Your task to perform on an android device: Open Wikipedia Image 0: 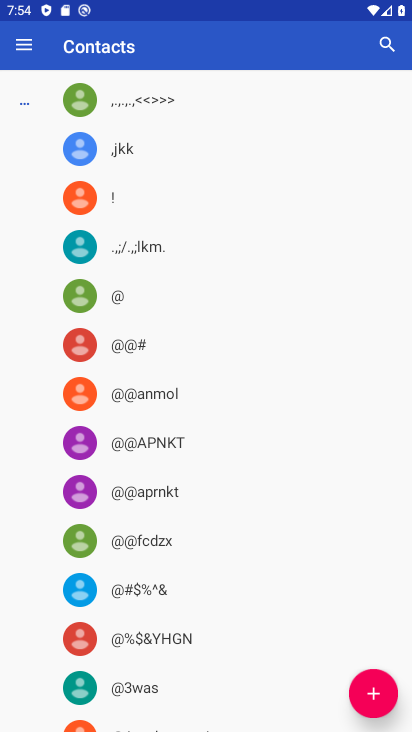
Step 0: press home button
Your task to perform on an android device: Open Wikipedia Image 1: 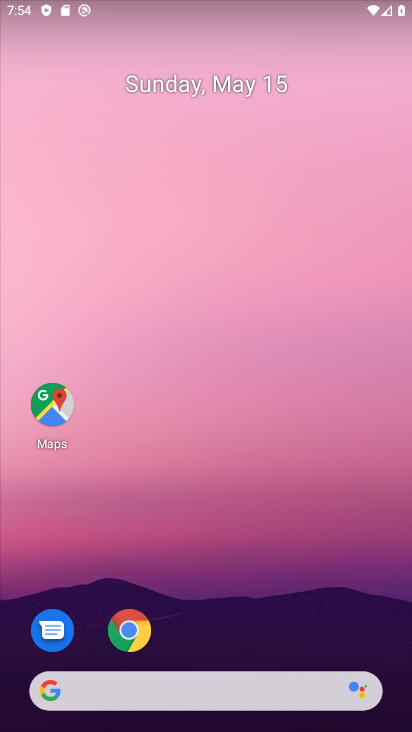
Step 1: click (128, 616)
Your task to perform on an android device: Open Wikipedia Image 2: 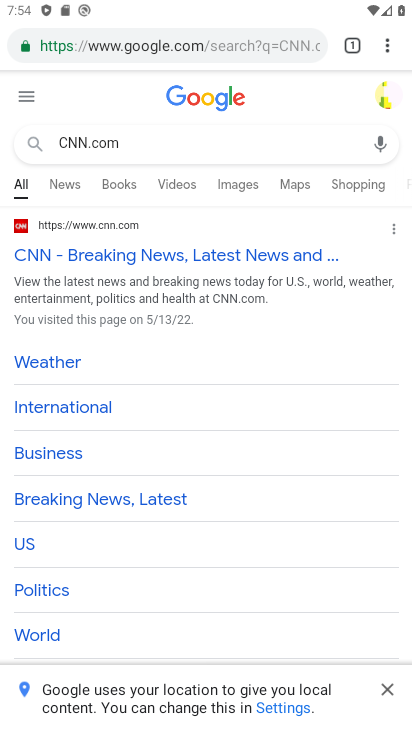
Step 2: click (176, 46)
Your task to perform on an android device: Open Wikipedia Image 3: 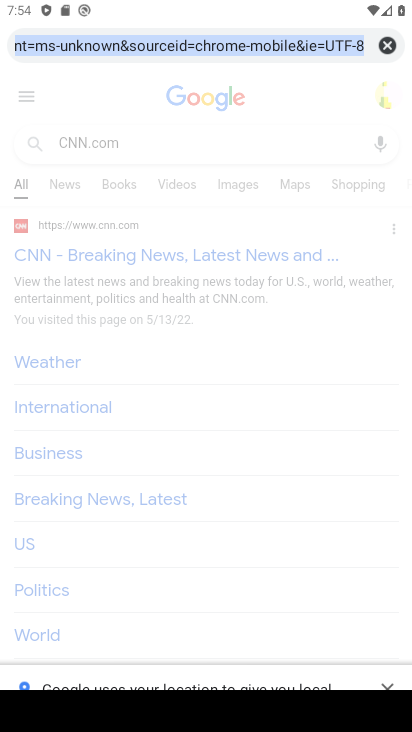
Step 3: type "wikipedia"
Your task to perform on an android device: Open Wikipedia Image 4: 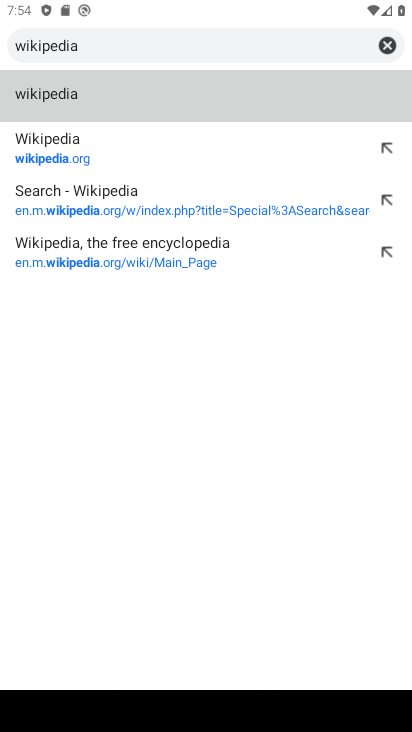
Step 4: click (82, 108)
Your task to perform on an android device: Open Wikipedia Image 5: 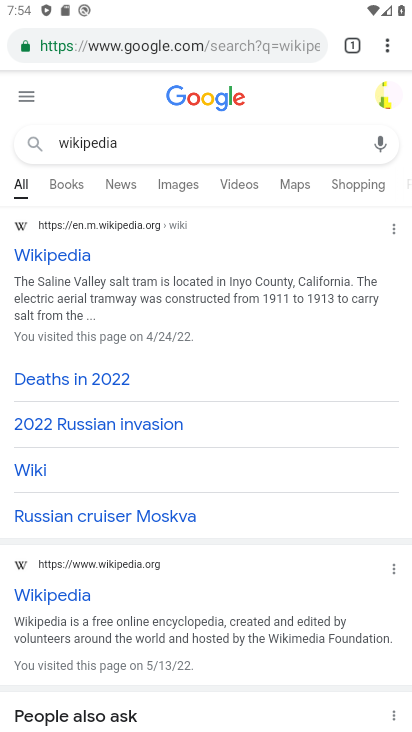
Step 5: task complete